Your task to perform on an android device: Open sound settings Image 0: 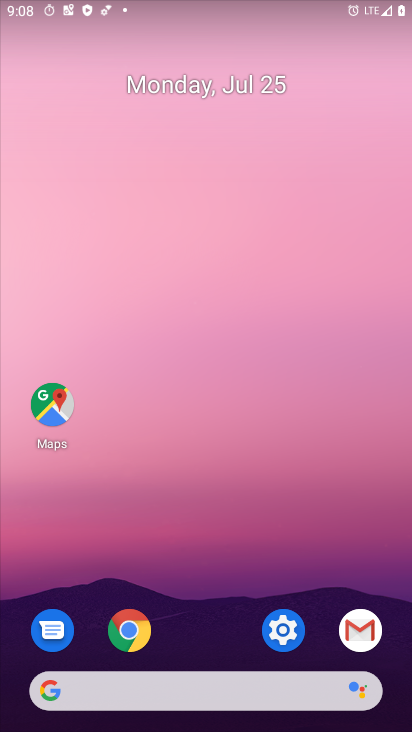
Step 0: click (274, 630)
Your task to perform on an android device: Open sound settings Image 1: 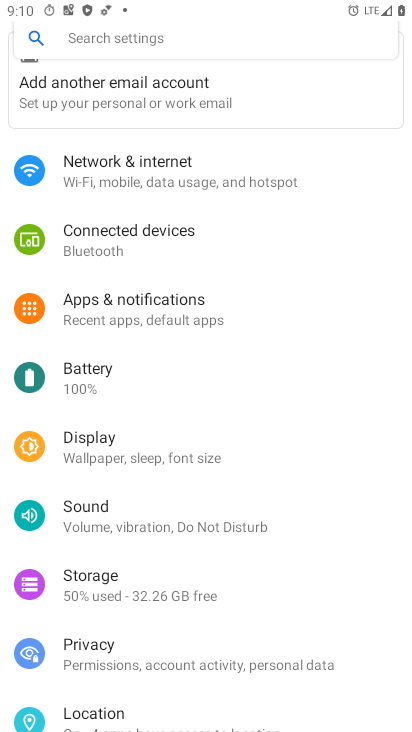
Step 1: click (103, 512)
Your task to perform on an android device: Open sound settings Image 2: 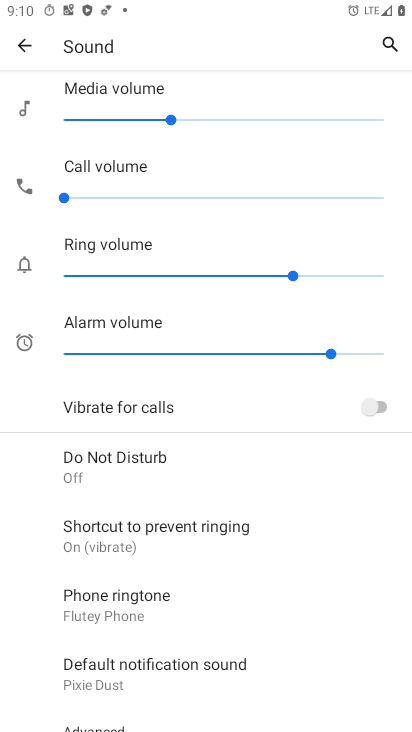
Step 2: task complete